Your task to perform on an android device: turn on data saver in the chrome app Image 0: 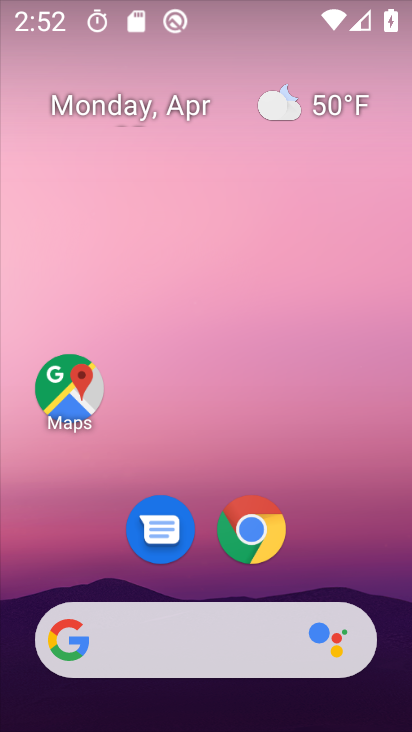
Step 0: drag from (353, 154) to (383, 4)
Your task to perform on an android device: turn on data saver in the chrome app Image 1: 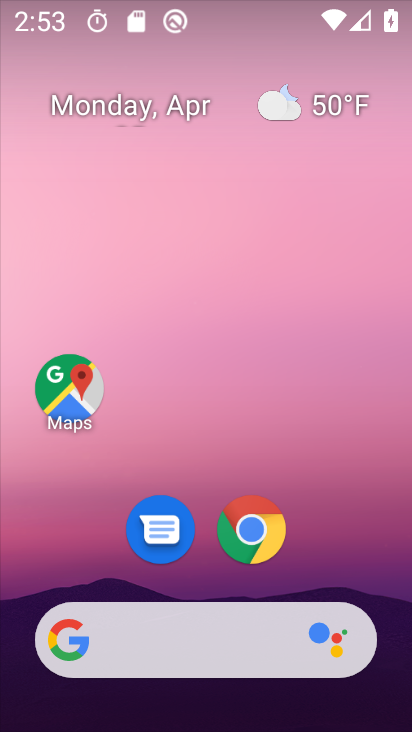
Step 1: click (253, 526)
Your task to perform on an android device: turn on data saver in the chrome app Image 2: 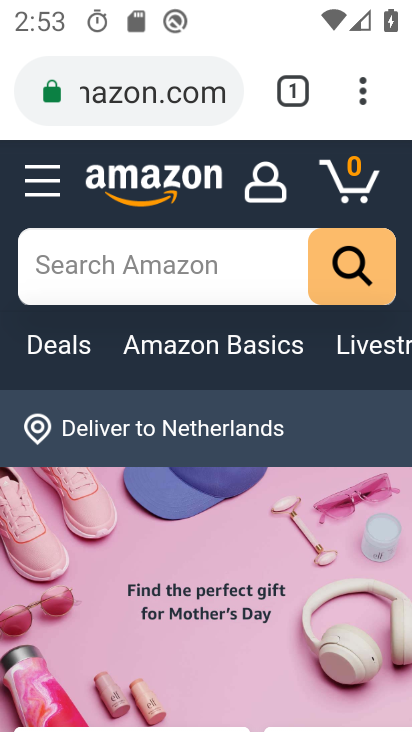
Step 2: click (360, 82)
Your task to perform on an android device: turn on data saver in the chrome app Image 3: 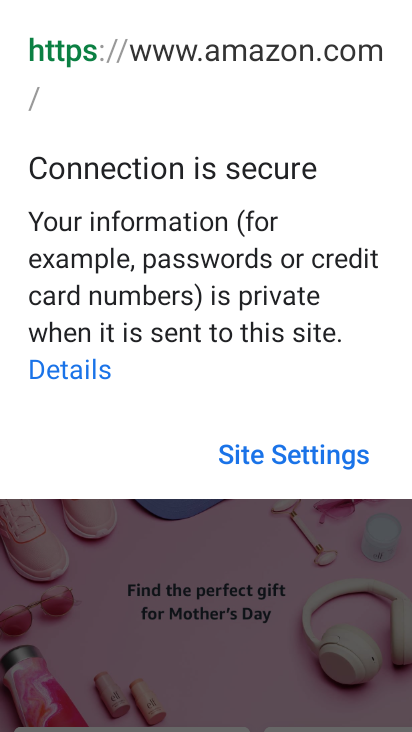
Step 3: click (251, 456)
Your task to perform on an android device: turn on data saver in the chrome app Image 4: 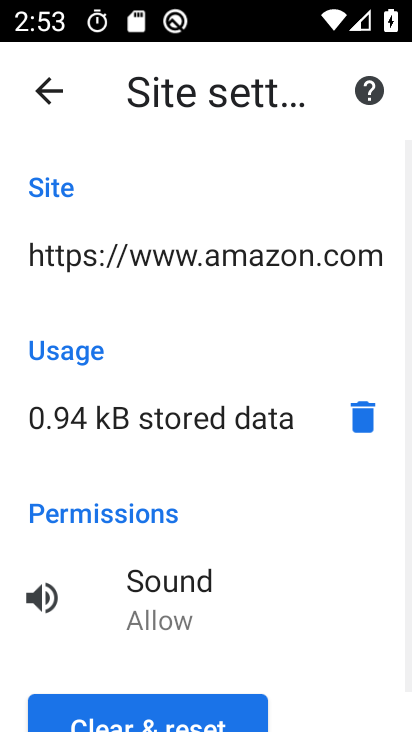
Step 4: task complete